Your task to perform on an android device: Go to calendar. Show me events next week Image 0: 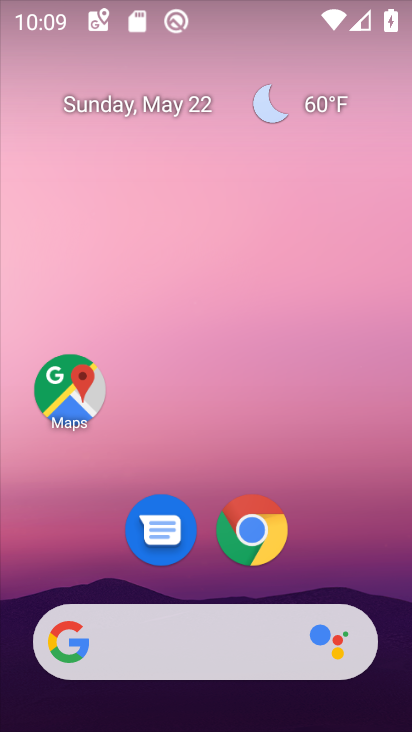
Step 0: drag from (398, 706) to (402, 354)
Your task to perform on an android device: Go to calendar. Show me events next week Image 1: 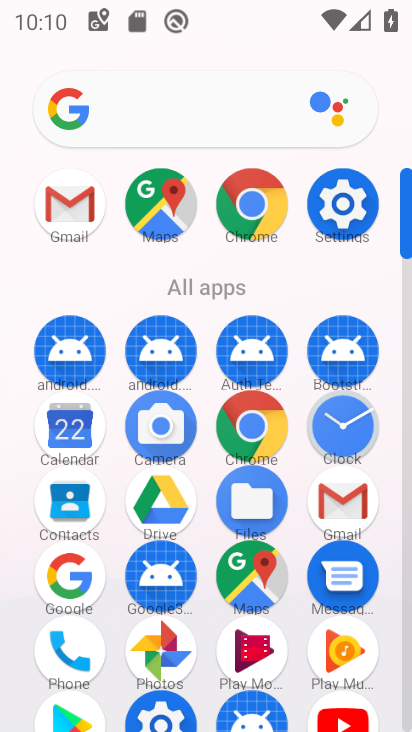
Step 1: click (94, 441)
Your task to perform on an android device: Go to calendar. Show me events next week Image 2: 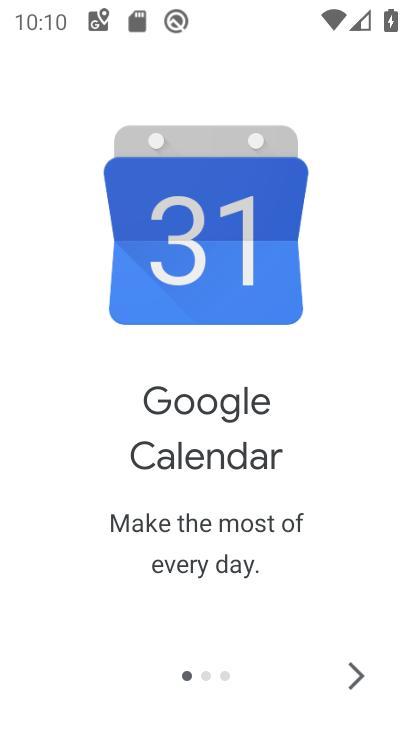
Step 2: click (348, 673)
Your task to perform on an android device: Go to calendar. Show me events next week Image 3: 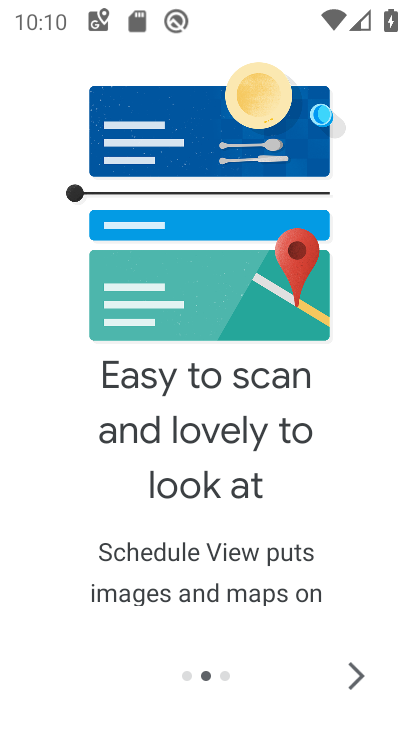
Step 3: click (354, 668)
Your task to perform on an android device: Go to calendar. Show me events next week Image 4: 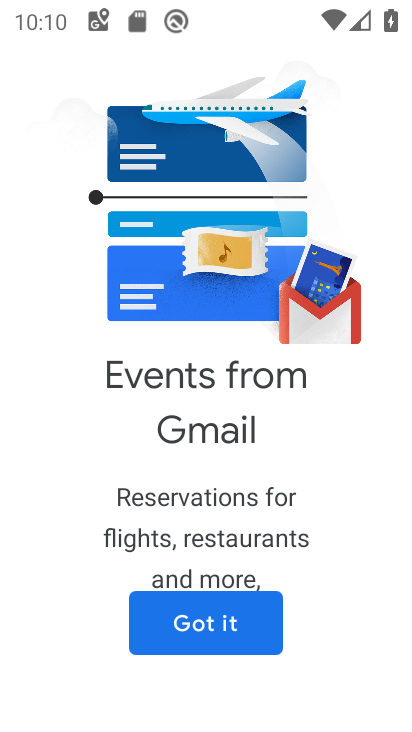
Step 4: click (207, 627)
Your task to perform on an android device: Go to calendar. Show me events next week Image 5: 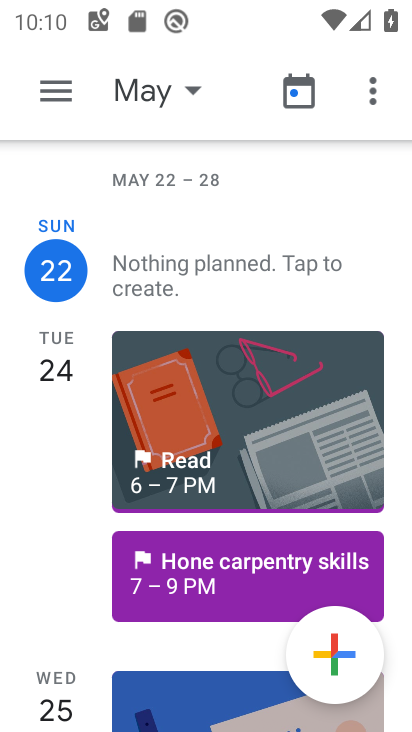
Step 5: click (187, 85)
Your task to perform on an android device: Go to calendar. Show me events next week Image 6: 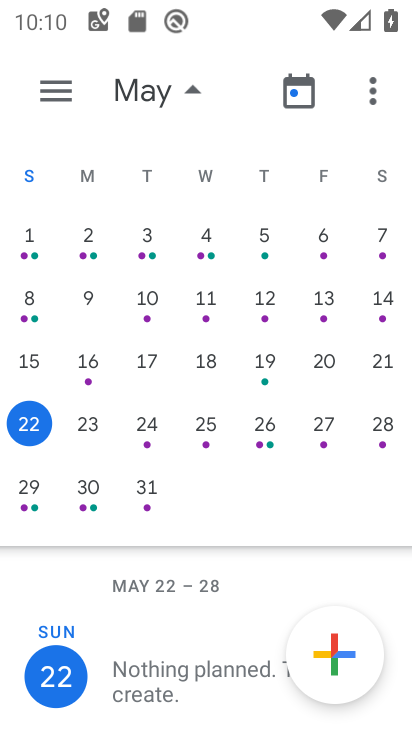
Step 6: click (92, 490)
Your task to perform on an android device: Go to calendar. Show me events next week Image 7: 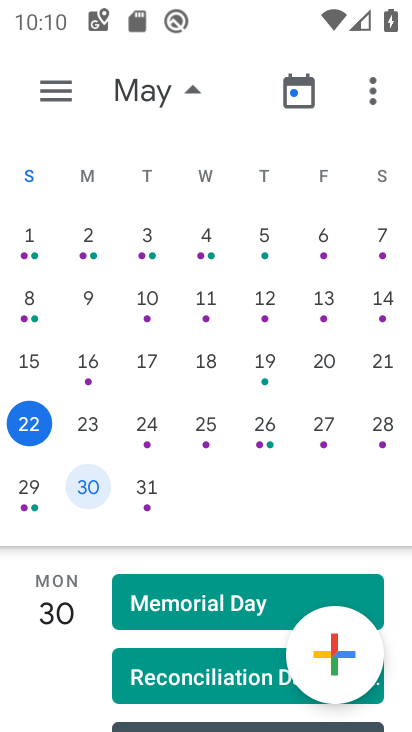
Step 7: click (55, 90)
Your task to perform on an android device: Go to calendar. Show me events next week Image 8: 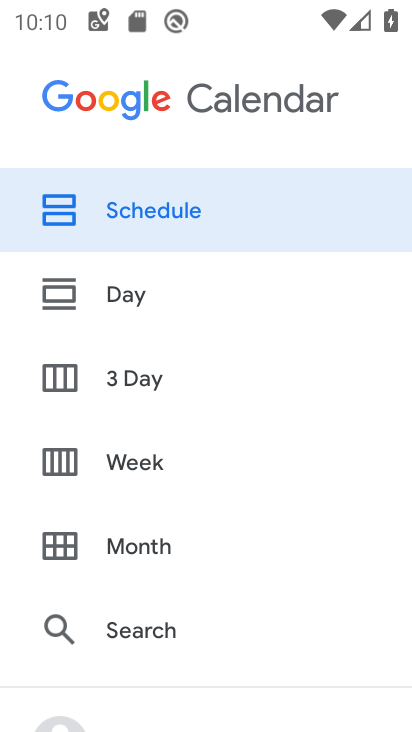
Step 8: click (125, 459)
Your task to perform on an android device: Go to calendar. Show me events next week Image 9: 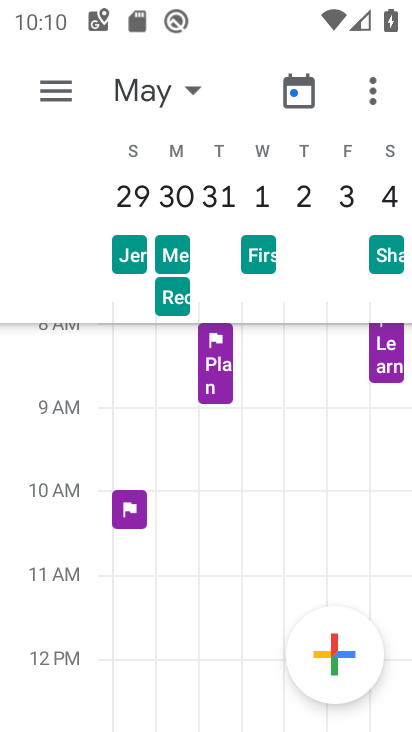
Step 9: task complete